Your task to perform on an android device: add a label to a message in the gmail app Image 0: 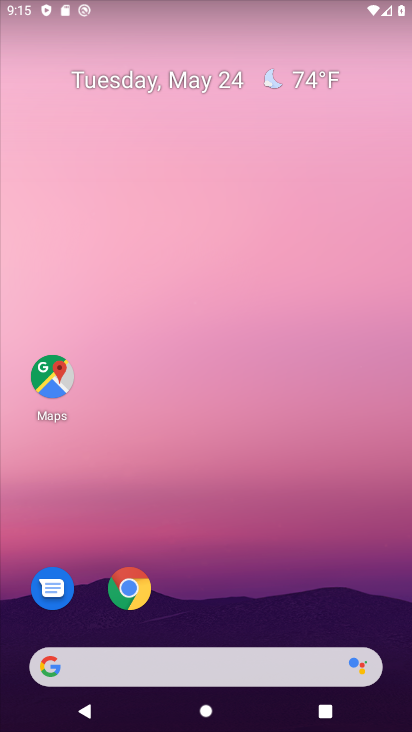
Step 0: drag from (213, 614) to (185, 50)
Your task to perform on an android device: add a label to a message in the gmail app Image 1: 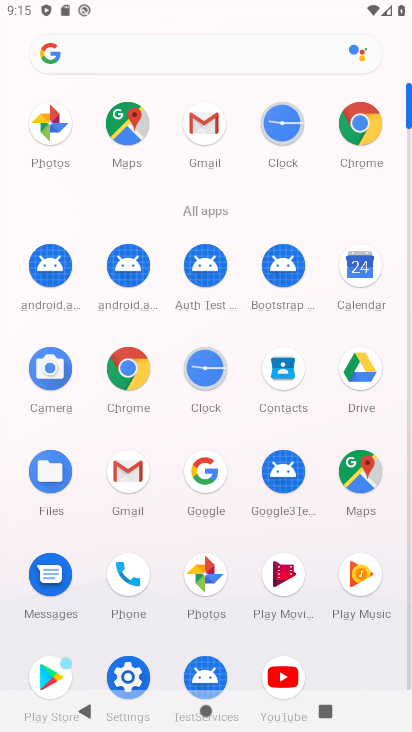
Step 1: click (206, 125)
Your task to perform on an android device: add a label to a message in the gmail app Image 2: 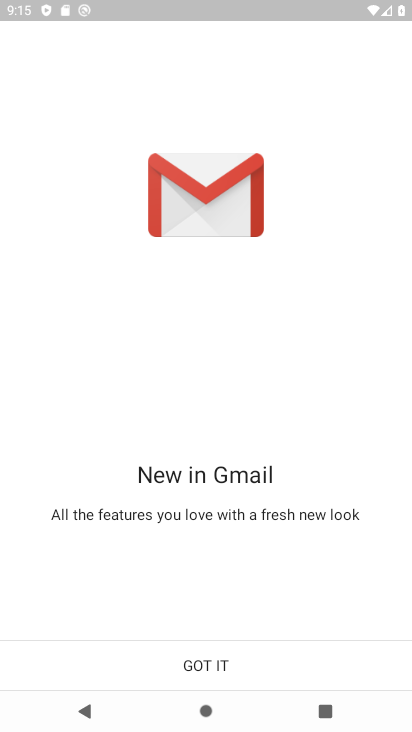
Step 2: click (232, 660)
Your task to perform on an android device: add a label to a message in the gmail app Image 3: 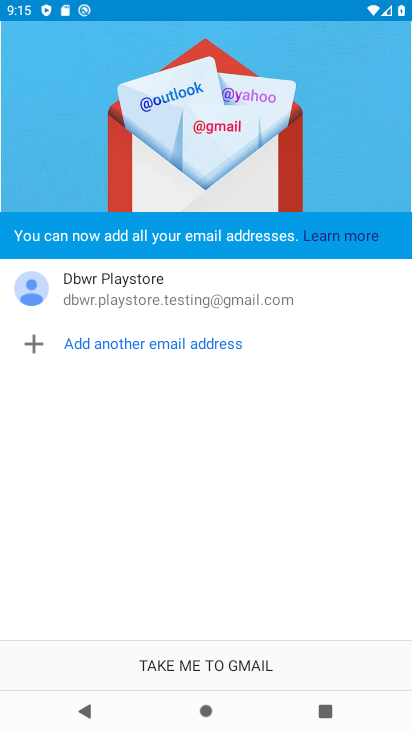
Step 3: click (232, 660)
Your task to perform on an android device: add a label to a message in the gmail app Image 4: 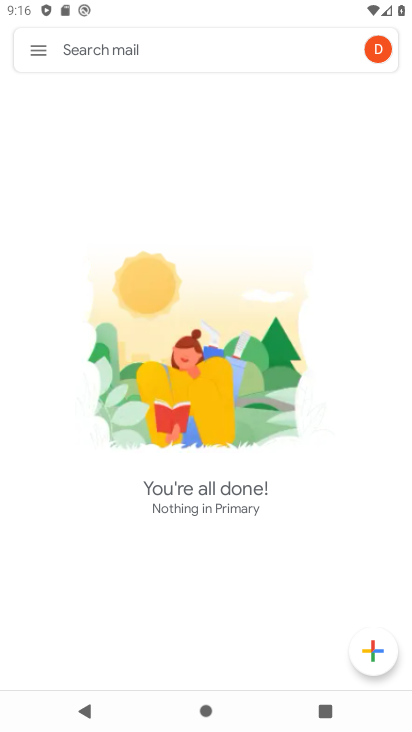
Step 4: task complete